Your task to perform on an android device: toggle notification dots Image 0: 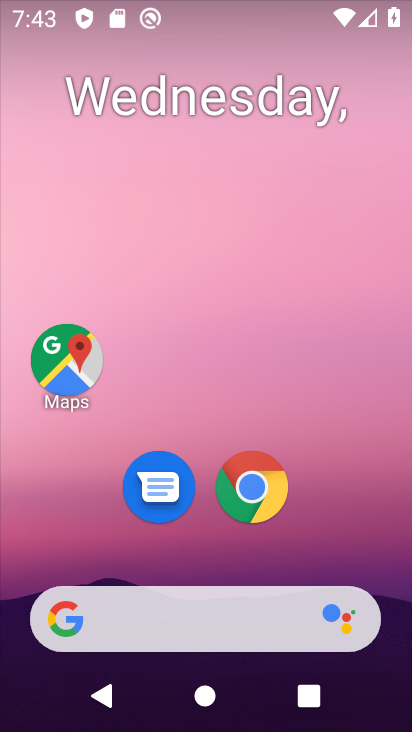
Step 0: drag from (379, 544) to (403, 193)
Your task to perform on an android device: toggle notification dots Image 1: 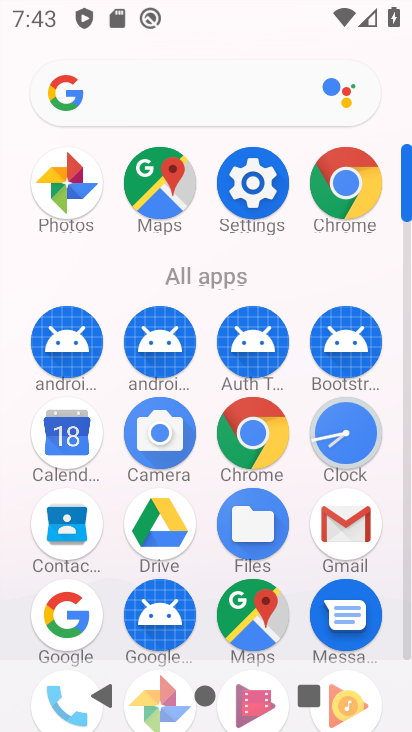
Step 1: click (264, 214)
Your task to perform on an android device: toggle notification dots Image 2: 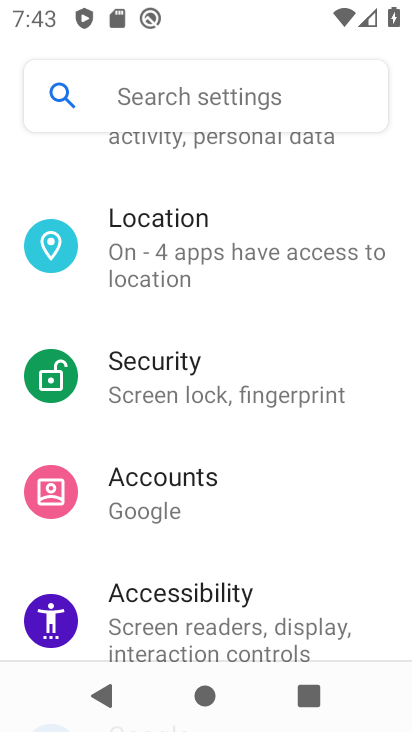
Step 2: drag from (355, 497) to (372, 414)
Your task to perform on an android device: toggle notification dots Image 3: 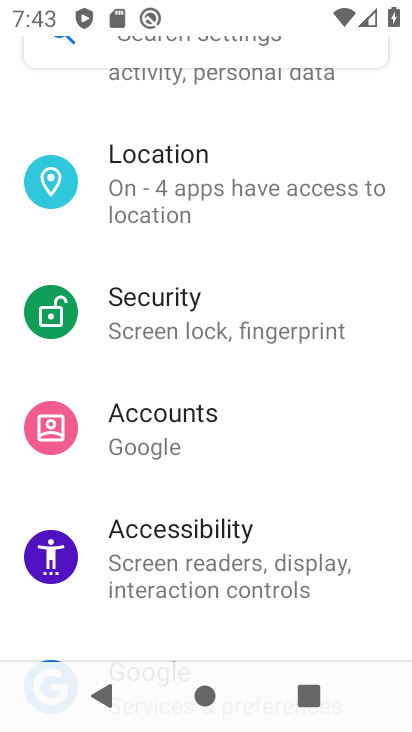
Step 3: drag from (376, 515) to (377, 382)
Your task to perform on an android device: toggle notification dots Image 4: 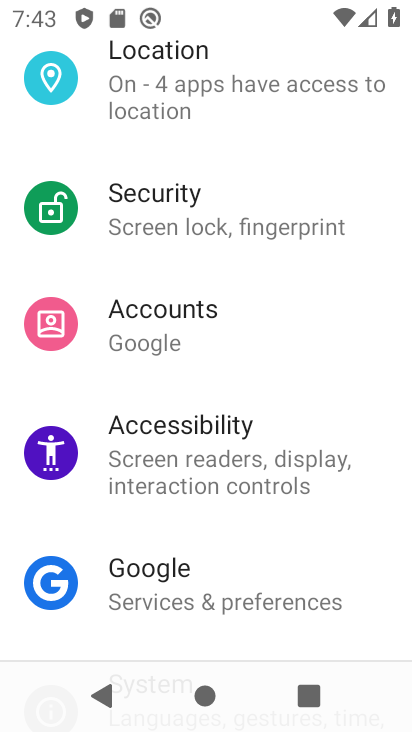
Step 4: drag from (372, 537) to (370, 403)
Your task to perform on an android device: toggle notification dots Image 5: 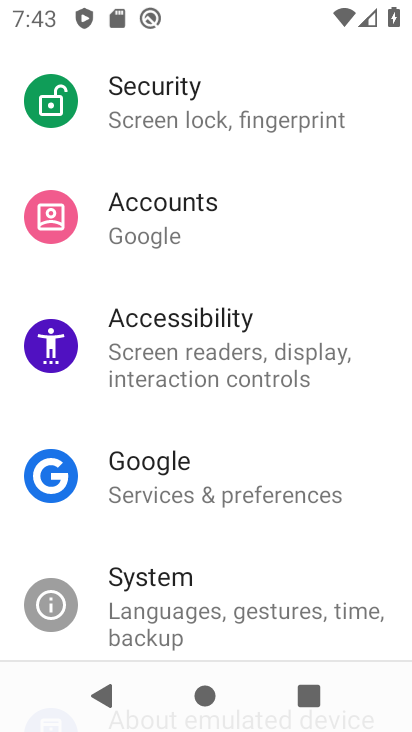
Step 5: drag from (378, 553) to (371, 427)
Your task to perform on an android device: toggle notification dots Image 6: 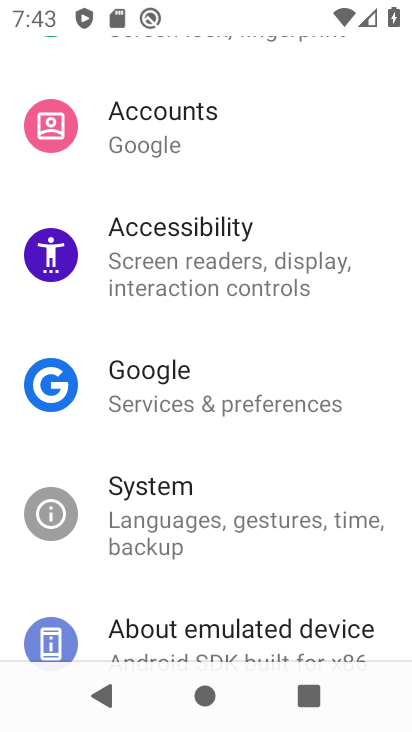
Step 6: drag from (363, 577) to (365, 436)
Your task to perform on an android device: toggle notification dots Image 7: 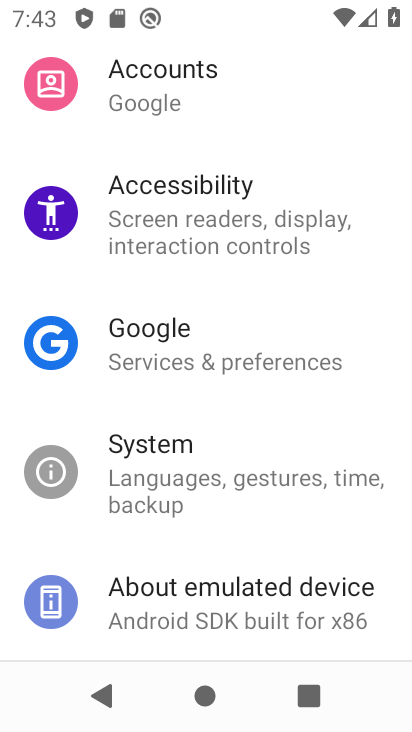
Step 7: drag from (365, 411) to (363, 501)
Your task to perform on an android device: toggle notification dots Image 8: 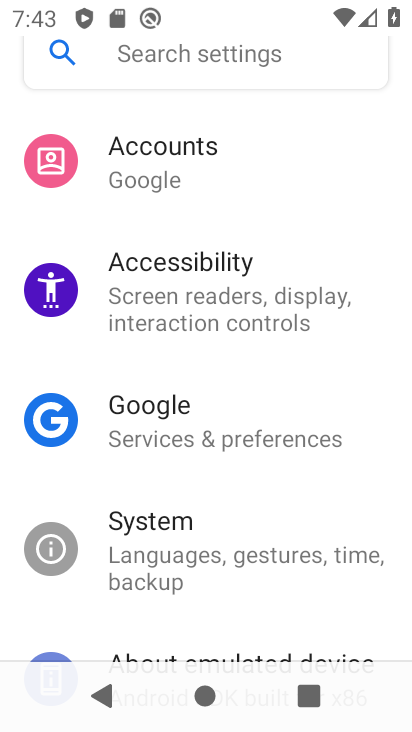
Step 8: drag from (368, 313) to (360, 426)
Your task to perform on an android device: toggle notification dots Image 9: 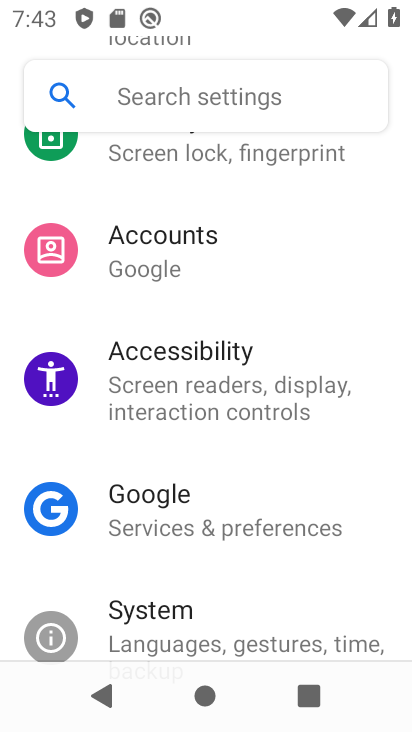
Step 9: drag from (335, 239) to (330, 378)
Your task to perform on an android device: toggle notification dots Image 10: 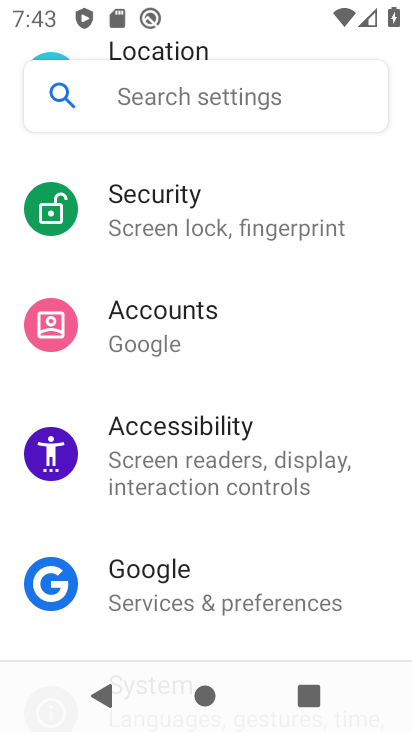
Step 10: drag from (368, 275) to (373, 373)
Your task to perform on an android device: toggle notification dots Image 11: 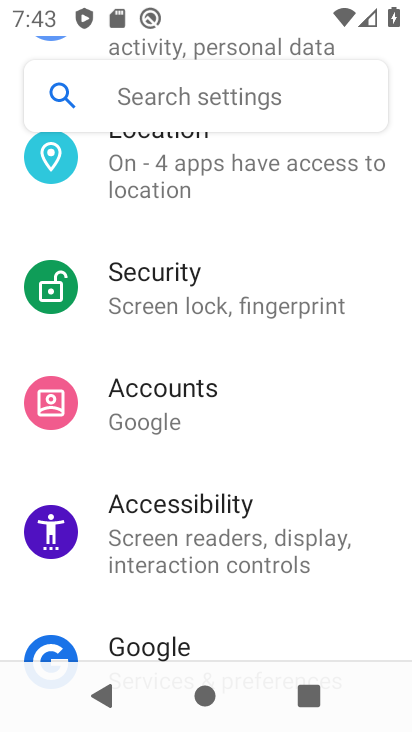
Step 11: drag from (370, 245) to (372, 347)
Your task to perform on an android device: toggle notification dots Image 12: 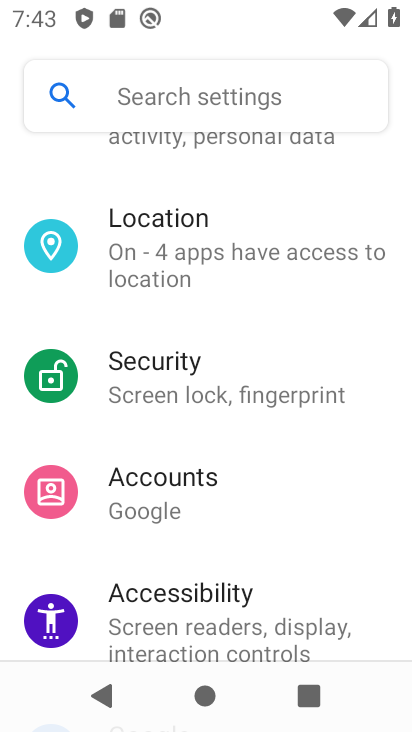
Step 12: drag from (375, 227) to (371, 344)
Your task to perform on an android device: toggle notification dots Image 13: 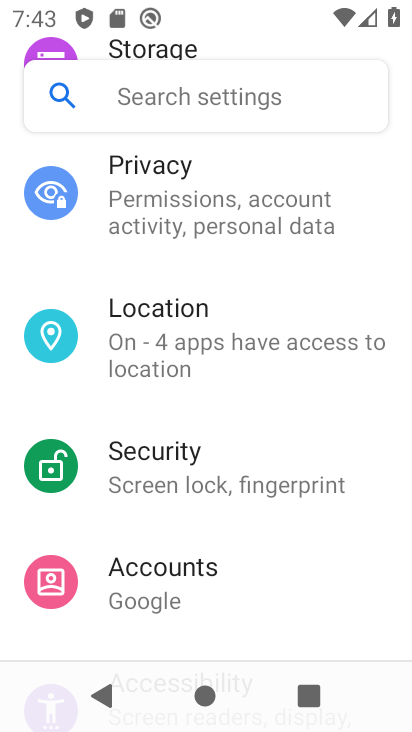
Step 13: drag from (383, 226) to (379, 327)
Your task to perform on an android device: toggle notification dots Image 14: 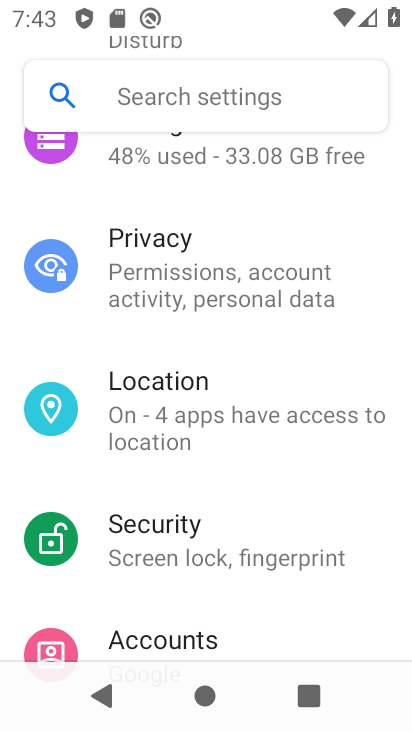
Step 14: drag from (374, 208) to (360, 308)
Your task to perform on an android device: toggle notification dots Image 15: 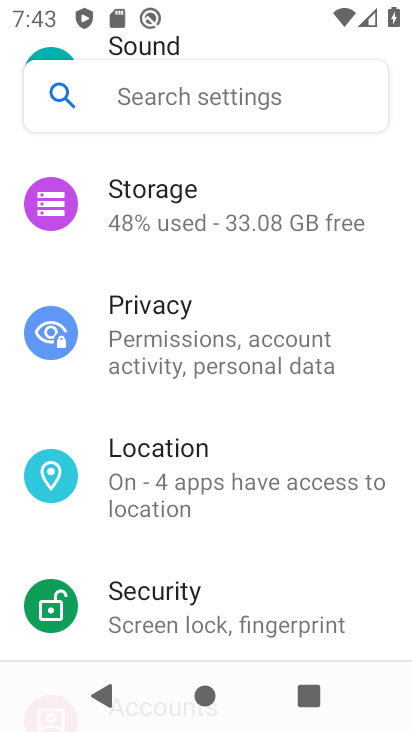
Step 15: drag from (369, 188) to (362, 292)
Your task to perform on an android device: toggle notification dots Image 16: 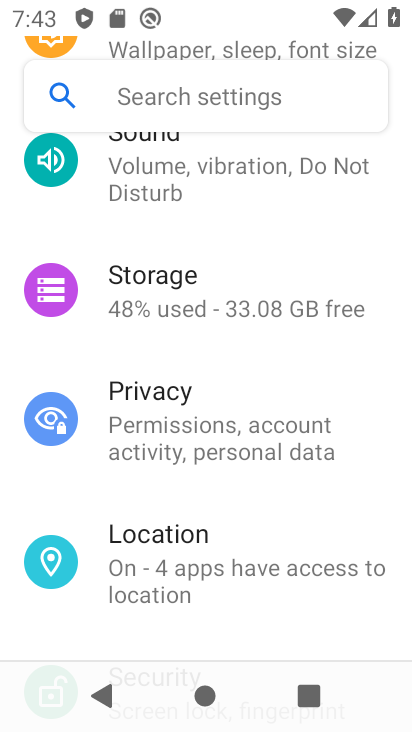
Step 16: drag from (362, 204) to (362, 306)
Your task to perform on an android device: toggle notification dots Image 17: 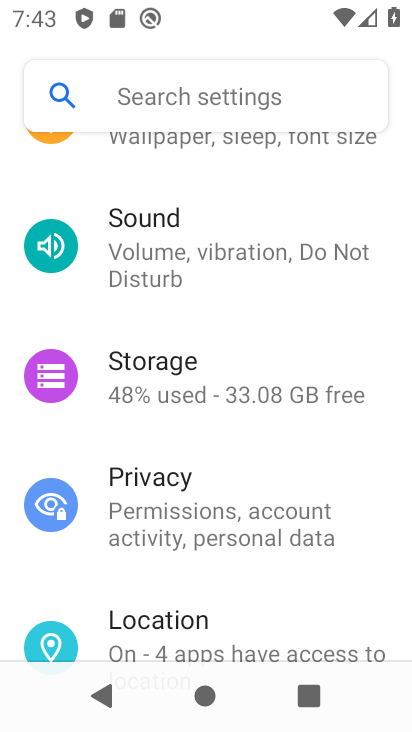
Step 17: drag from (355, 179) to (357, 284)
Your task to perform on an android device: toggle notification dots Image 18: 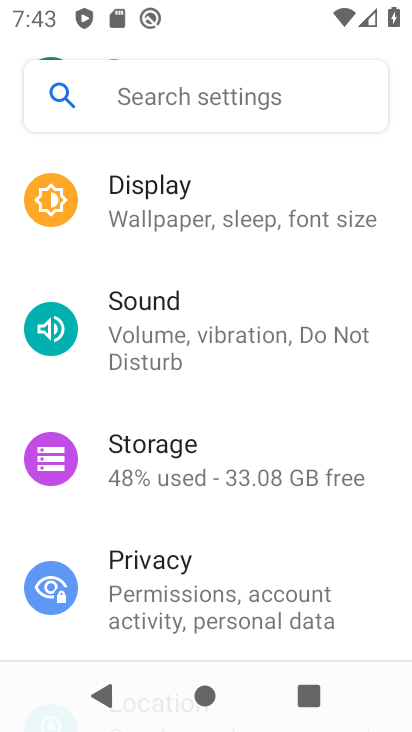
Step 18: drag from (350, 176) to (355, 279)
Your task to perform on an android device: toggle notification dots Image 19: 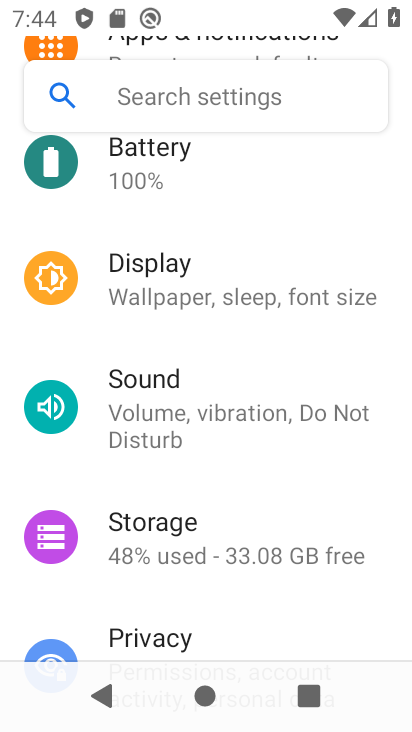
Step 19: drag from (346, 168) to (344, 280)
Your task to perform on an android device: toggle notification dots Image 20: 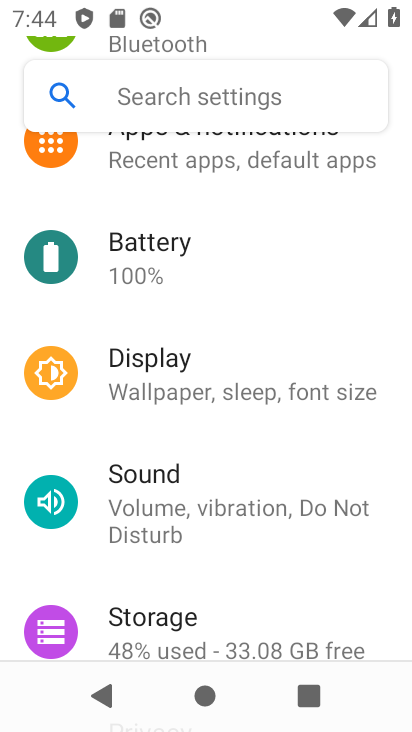
Step 20: drag from (340, 199) to (341, 287)
Your task to perform on an android device: toggle notification dots Image 21: 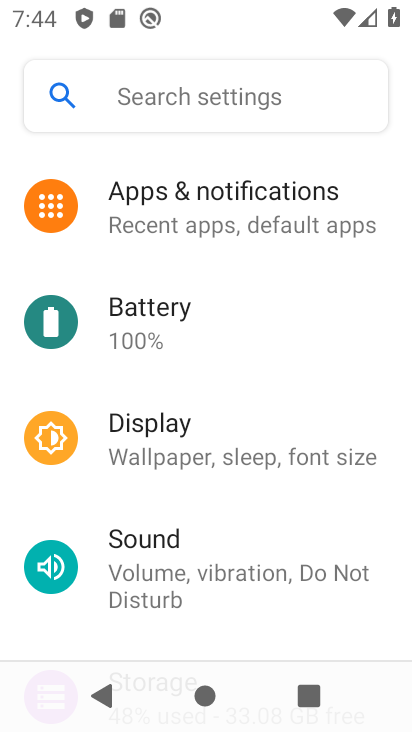
Step 21: click (313, 213)
Your task to perform on an android device: toggle notification dots Image 22: 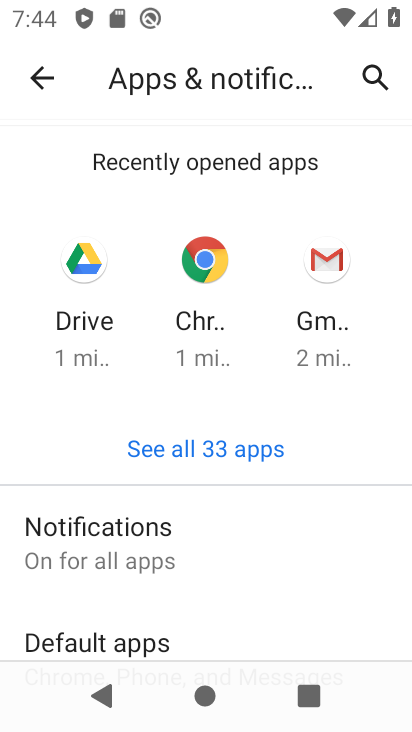
Step 22: drag from (326, 511) to (342, 446)
Your task to perform on an android device: toggle notification dots Image 23: 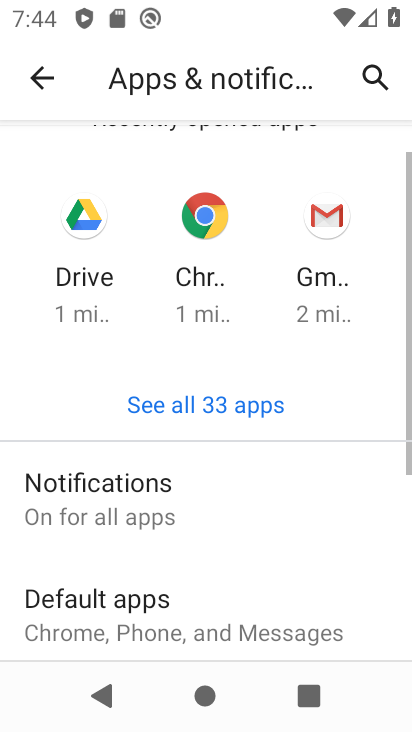
Step 23: drag from (334, 525) to (344, 430)
Your task to perform on an android device: toggle notification dots Image 24: 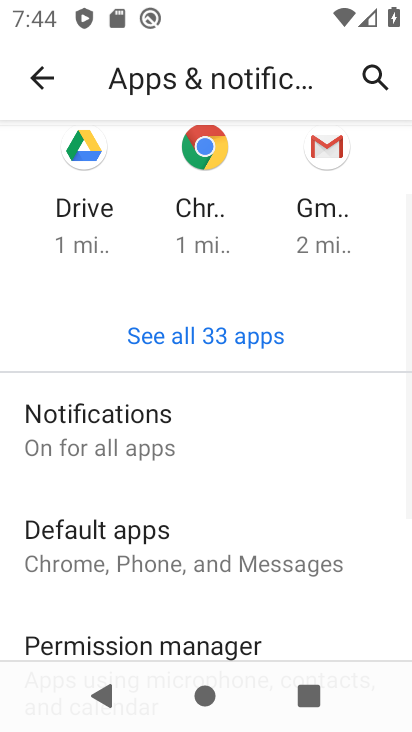
Step 24: drag from (335, 499) to (347, 402)
Your task to perform on an android device: toggle notification dots Image 25: 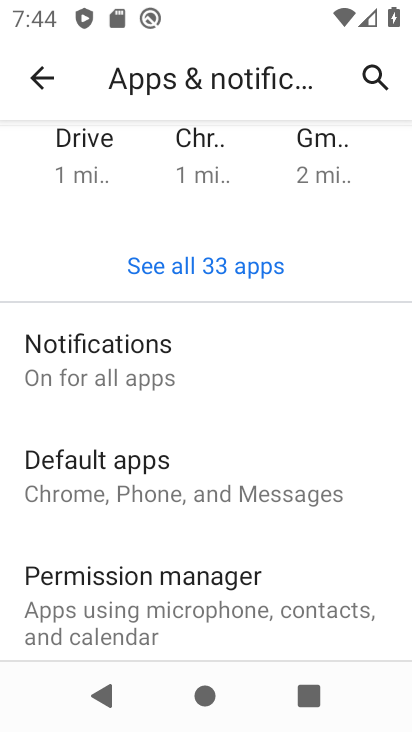
Step 25: click (167, 377)
Your task to perform on an android device: toggle notification dots Image 26: 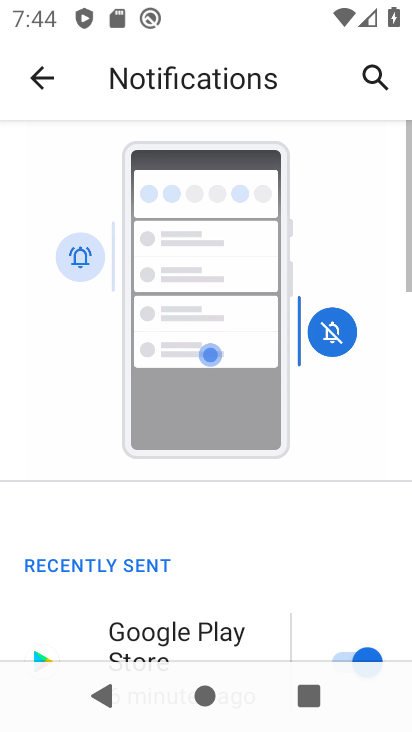
Step 26: drag from (290, 539) to (307, 454)
Your task to perform on an android device: toggle notification dots Image 27: 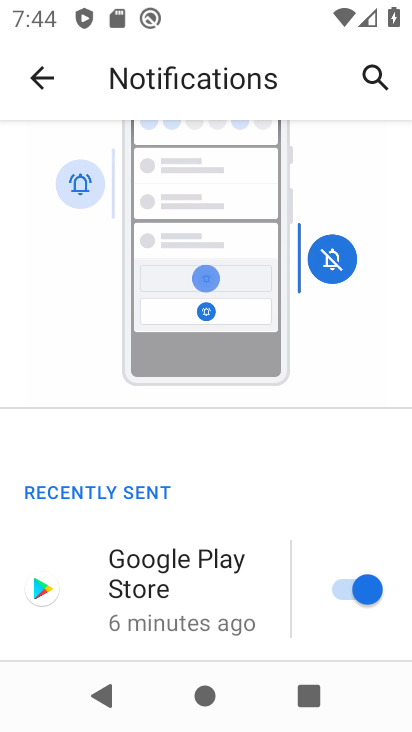
Step 27: drag from (302, 542) to (320, 445)
Your task to perform on an android device: toggle notification dots Image 28: 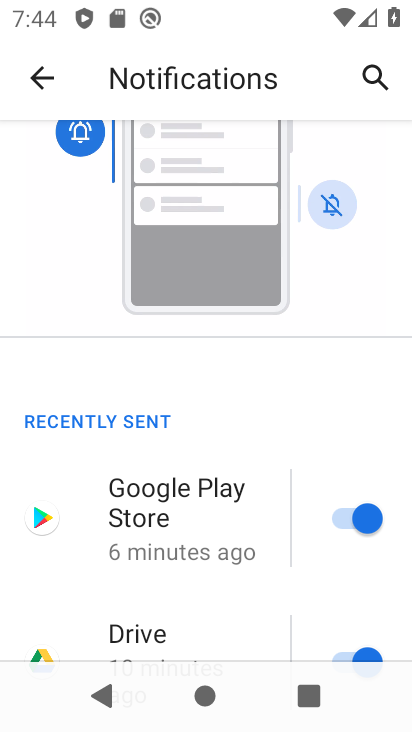
Step 28: drag from (301, 574) to (320, 472)
Your task to perform on an android device: toggle notification dots Image 29: 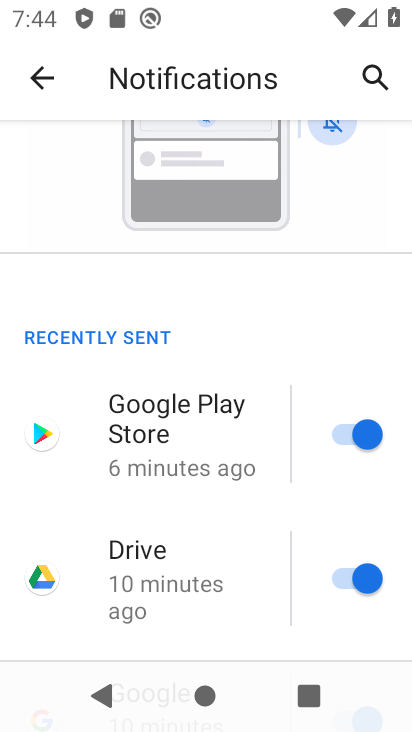
Step 29: drag from (266, 586) to (266, 472)
Your task to perform on an android device: toggle notification dots Image 30: 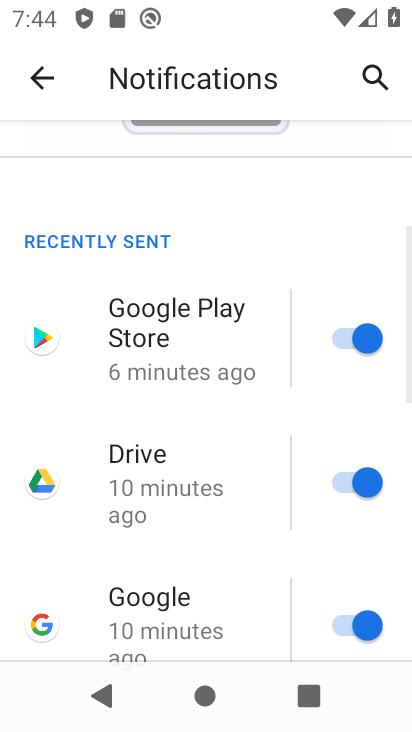
Step 30: drag from (257, 592) to (267, 459)
Your task to perform on an android device: toggle notification dots Image 31: 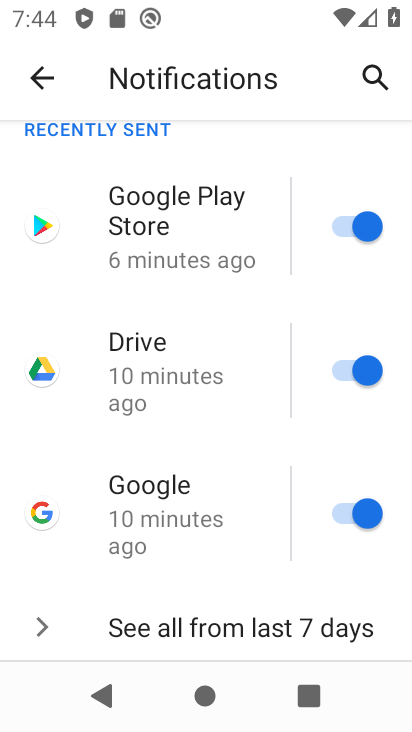
Step 31: drag from (255, 595) to (268, 461)
Your task to perform on an android device: toggle notification dots Image 32: 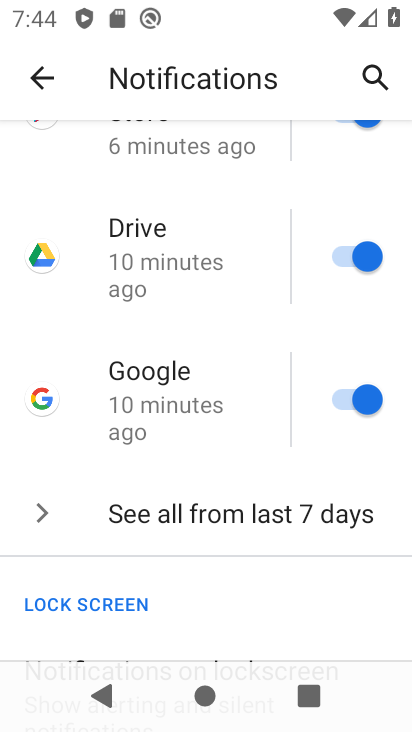
Step 32: drag from (266, 617) to (266, 449)
Your task to perform on an android device: toggle notification dots Image 33: 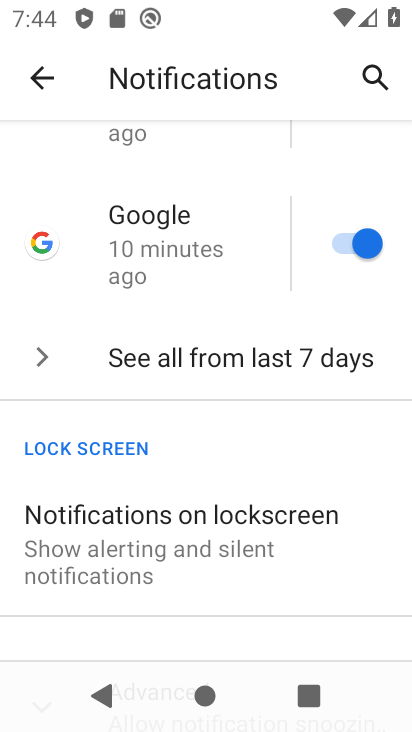
Step 33: drag from (269, 585) to (274, 446)
Your task to perform on an android device: toggle notification dots Image 34: 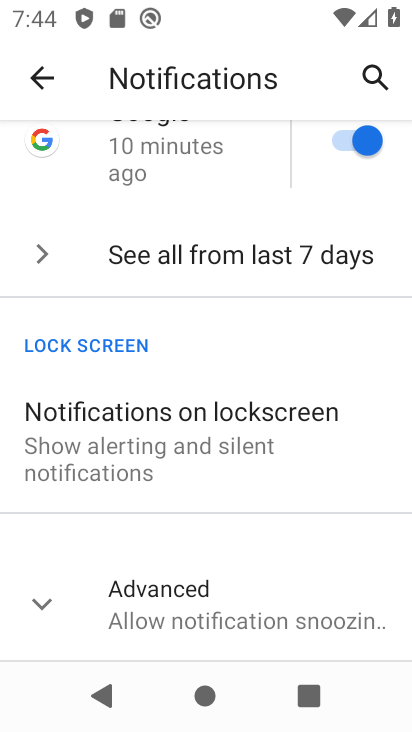
Step 34: drag from (271, 573) to (297, 452)
Your task to perform on an android device: toggle notification dots Image 35: 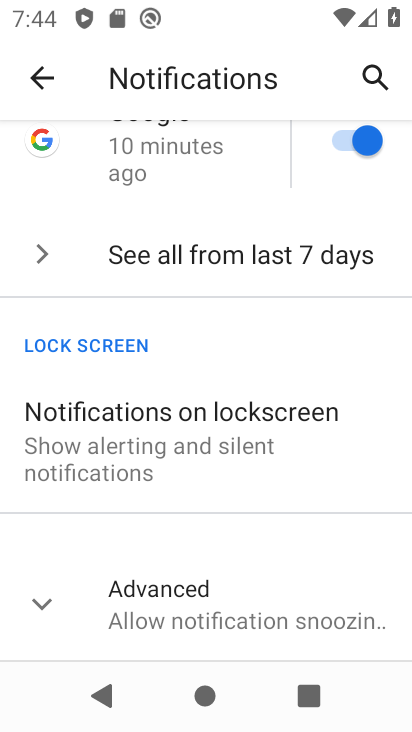
Step 35: click (266, 599)
Your task to perform on an android device: toggle notification dots Image 36: 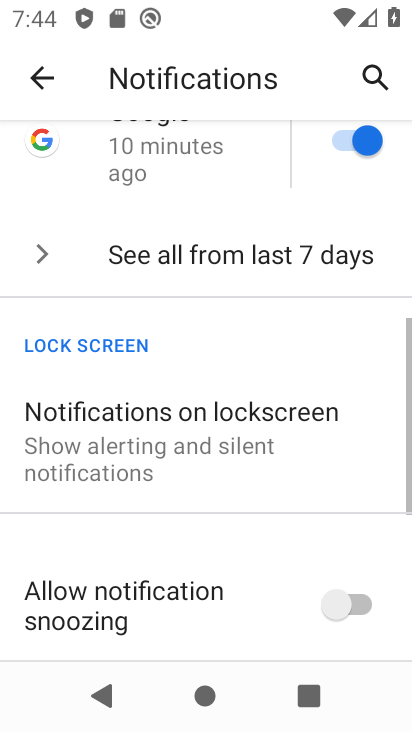
Step 36: drag from (266, 599) to (281, 446)
Your task to perform on an android device: toggle notification dots Image 37: 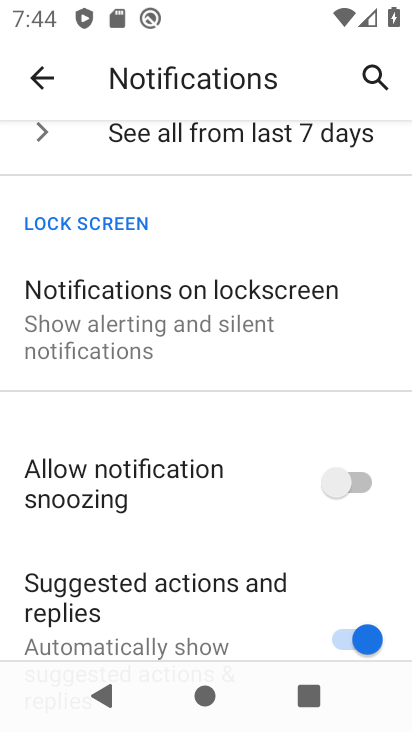
Step 37: drag from (266, 612) to (292, 463)
Your task to perform on an android device: toggle notification dots Image 38: 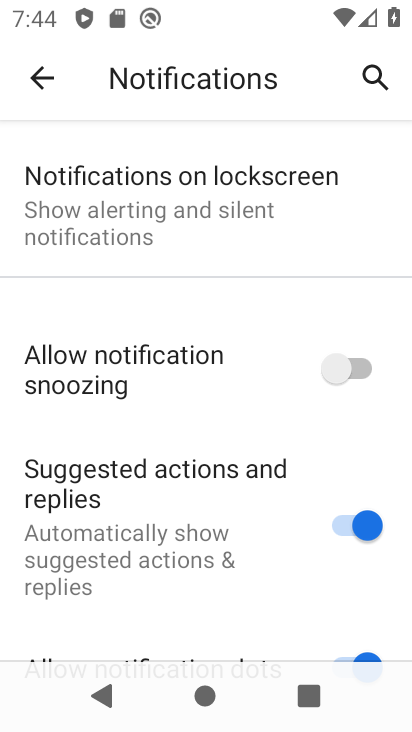
Step 38: drag from (273, 594) to (275, 458)
Your task to perform on an android device: toggle notification dots Image 39: 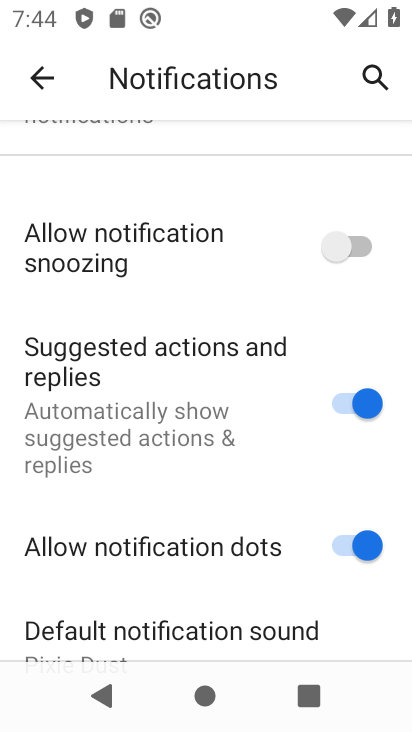
Step 39: click (349, 548)
Your task to perform on an android device: toggle notification dots Image 40: 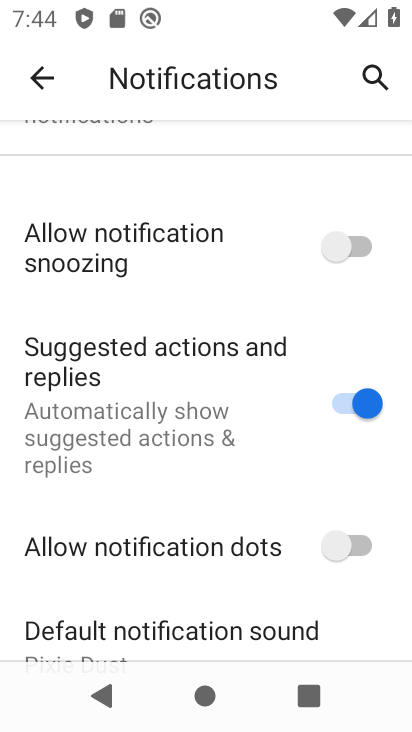
Step 40: task complete